Your task to perform on an android device: Open calendar and show me the third week of next month Image 0: 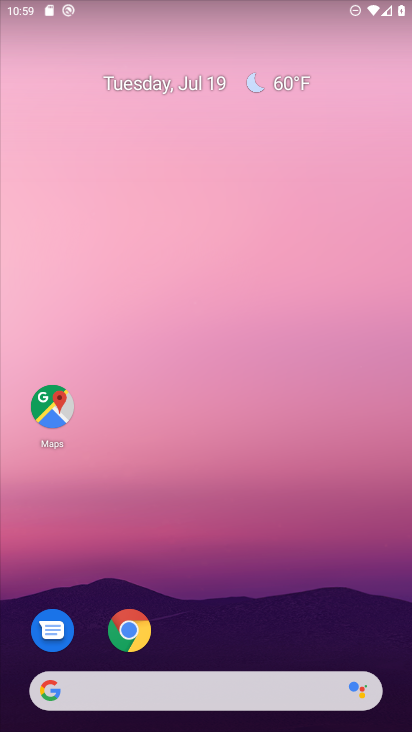
Step 0: drag from (187, 691) to (174, 0)
Your task to perform on an android device: Open calendar and show me the third week of next month Image 1: 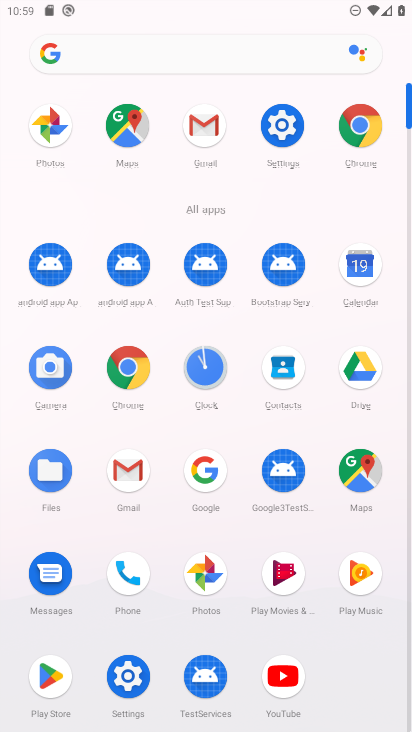
Step 1: click (374, 266)
Your task to perform on an android device: Open calendar and show me the third week of next month Image 2: 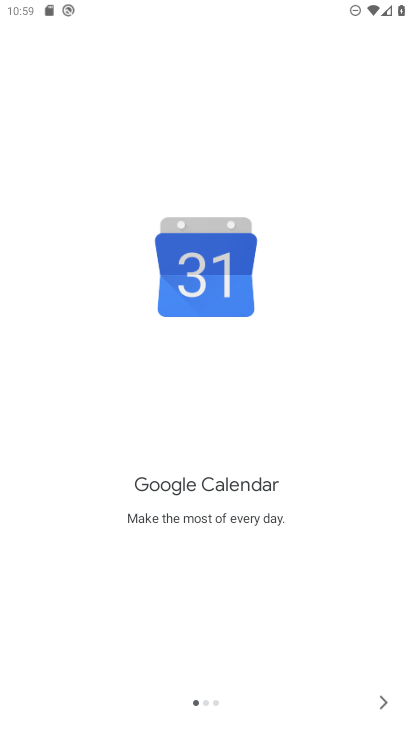
Step 2: click (377, 692)
Your task to perform on an android device: Open calendar and show me the third week of next month Image 3: 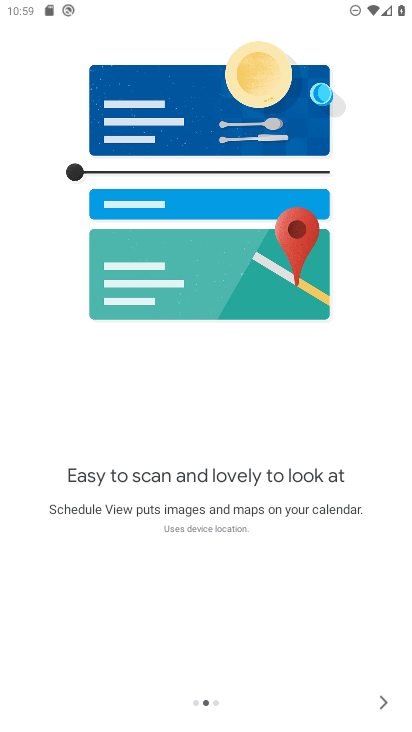
Step 3: click (377, 692)
Your task to perform on an android device: Open calendar and show me the third week of next month Image 4: 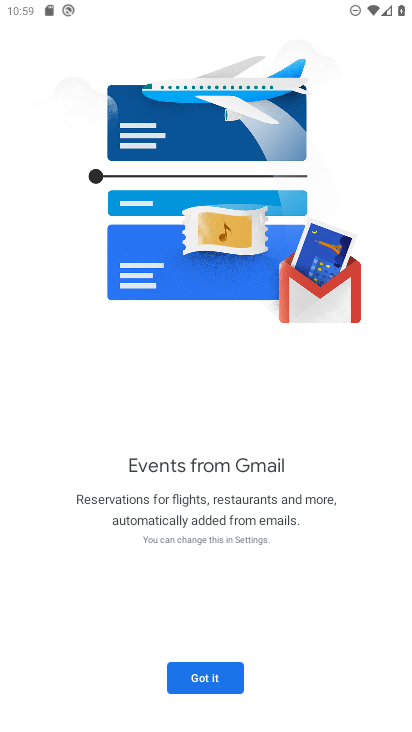
Step 4: click (215, 667)
Your task to perform on an android device: Open calendar and show me the third week of next month Image 5: 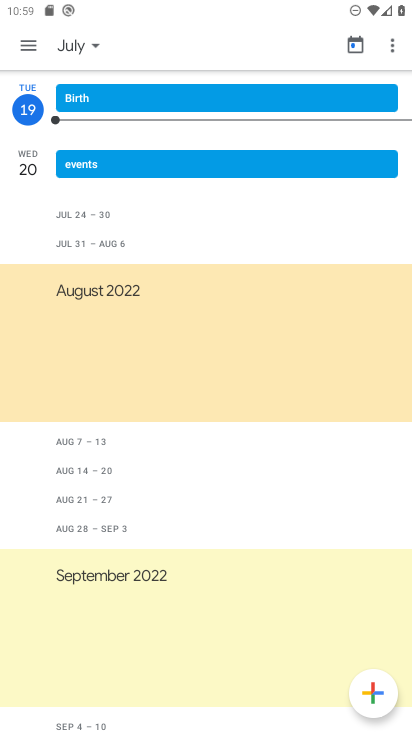
Step 5: click (33, 47)
Your task to perform on an android device: Open calendar and show me the third week of next month Image 6: 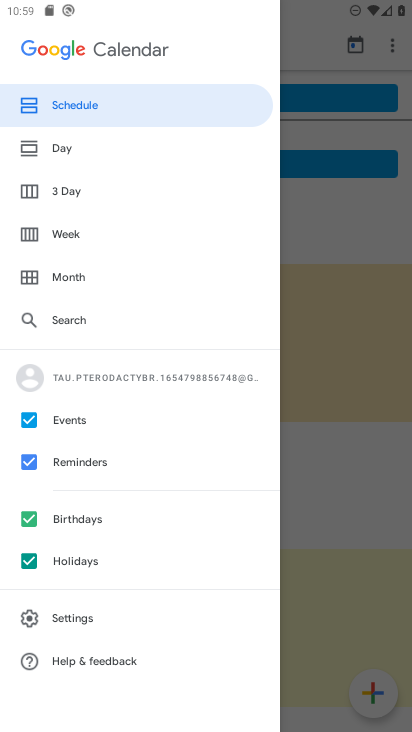
Step 6: click (89, 276)
Your task to perform on an android device: Open calendar and show me the third week of next month Image 7: 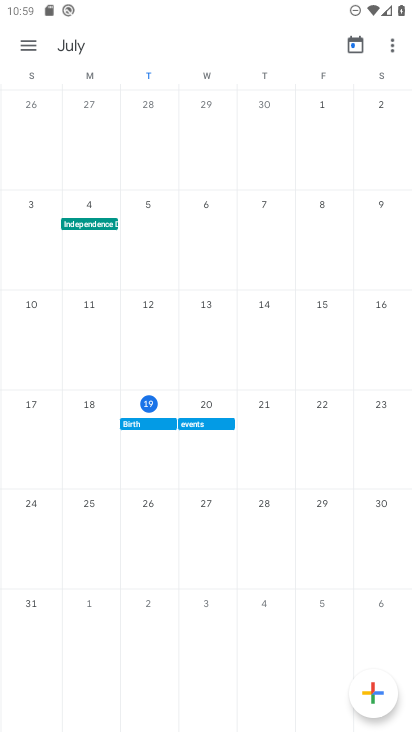
Step 7: task complete